Your task to perform on an android device: Do I have any events tomorrow? Image 0: 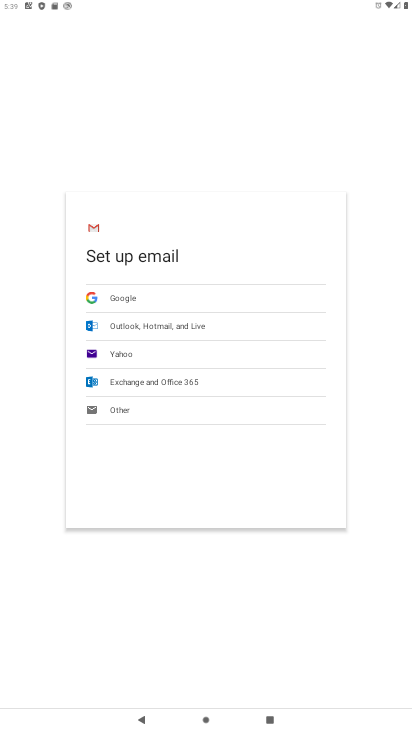
Step 0: press home button
Your task to perform on an android device: Do I have any events tomorrow? Image 1: 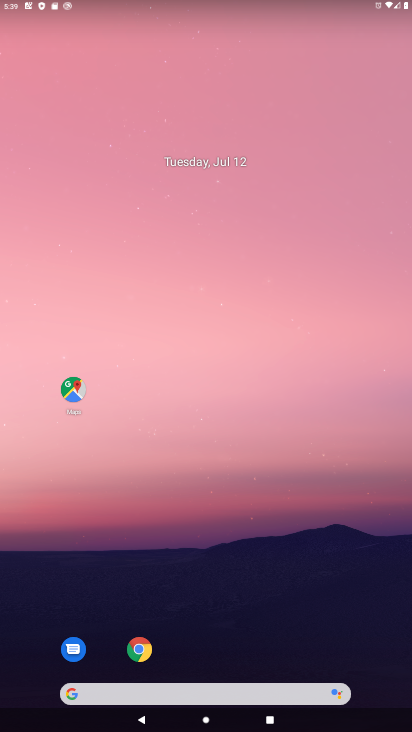
Step 1: drag from (199, 690) to (235, 147)
Your task to perform on an android device: Do I have any events tomorrow? Image 2: 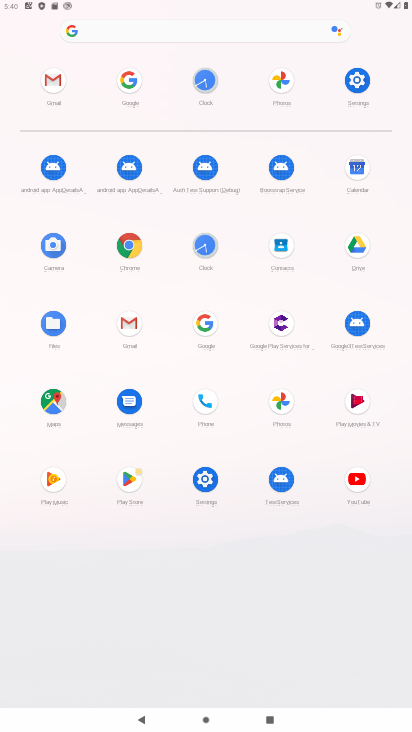
Step 2: click (357, 168)
Your task to perform on an android device: Do I have any events tomorrow? Image 3: 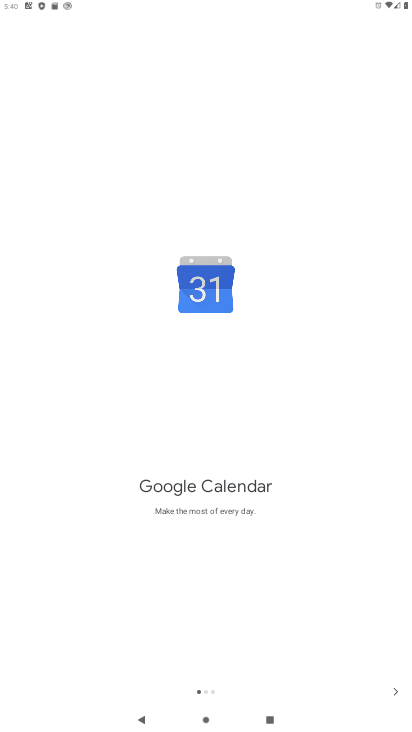
Step 3: click (400, 693)
Your task to perform on an android device: Do I have any events tomorrow? Image 4: 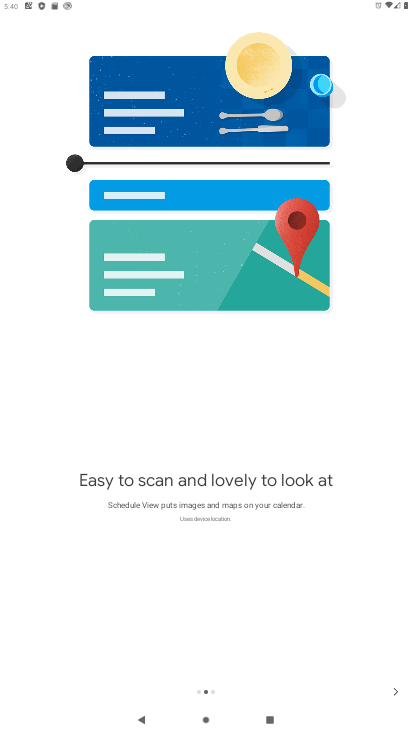
Step 4: click (400, 693)
Your task to perform on an android device: Do I have any events tomorrow? Image 5: 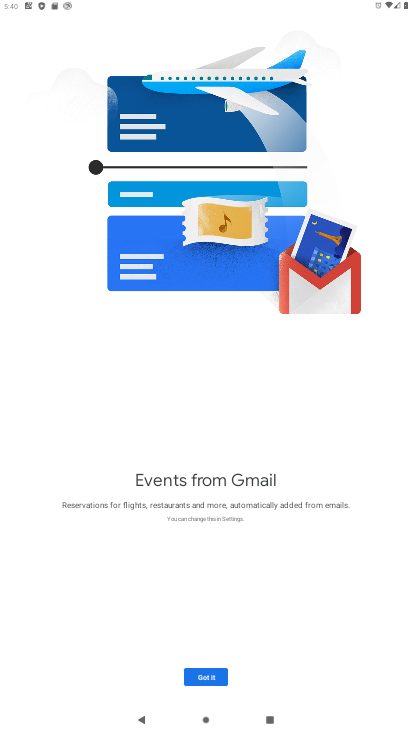
Step 5: click (213, 682)
Your task to perform on an android device: Do I have any events tomorrow? Image 6: 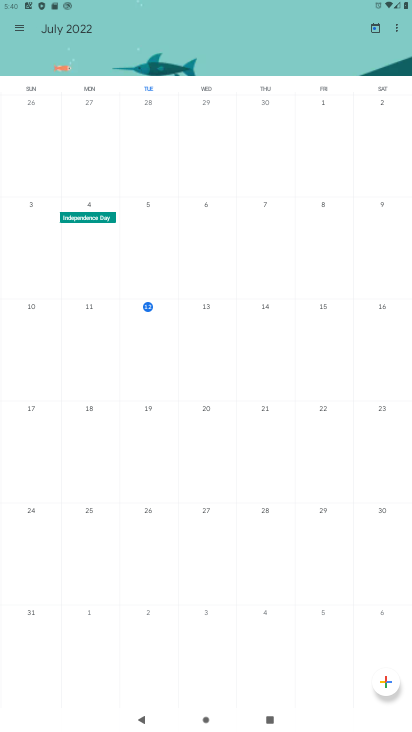
Step 6: click (210, 309)
Your task to perform on an android device: Do I have any events tomorrow? Image 7: 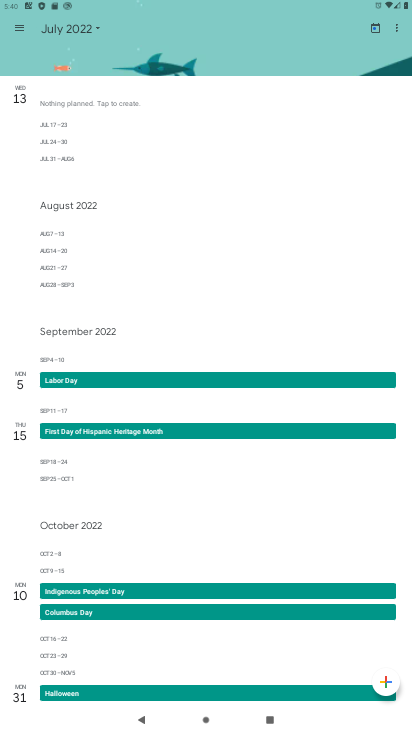
Step 7: click (21, 27)
Your task to perform on an android device: Do I have any events tomorrow? Image 8: 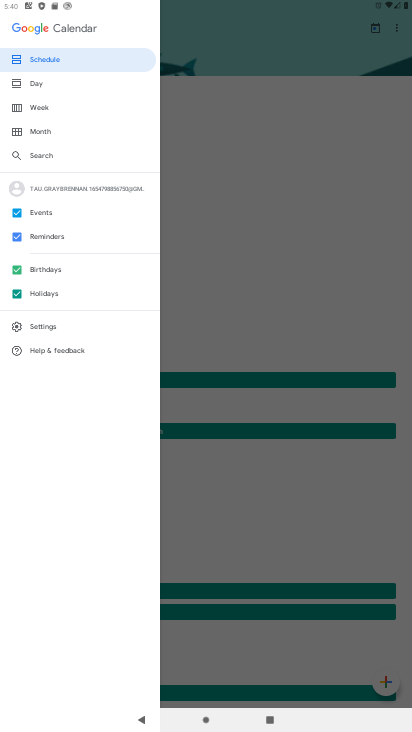
Step 8: click (48, 111)
Your task to perform on an android device: Do I have any events tomorrow? Image 9: 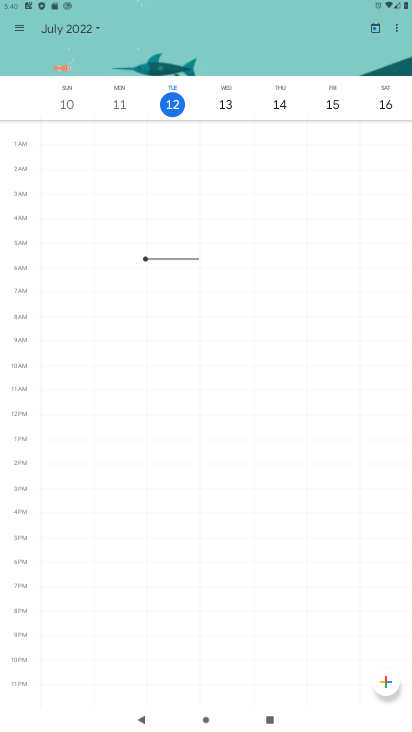
Step 9: task complete